Your task to perform on an android device: What's the weather going to be tomorrow? Image 0: 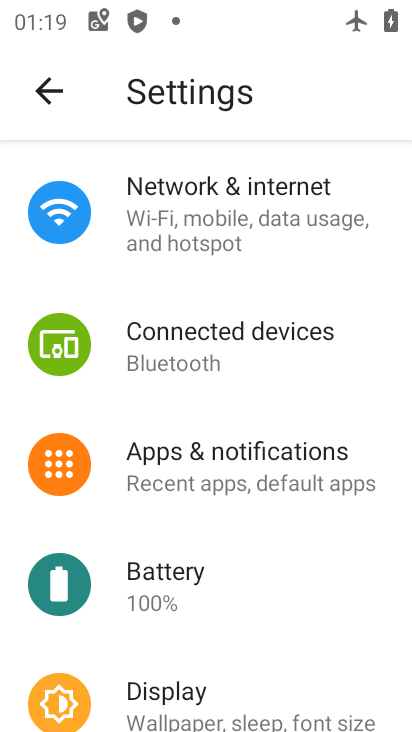
Step 0: press home button
Your task to perform on an android device: What's the weather going to be tomorrow? Image 1: 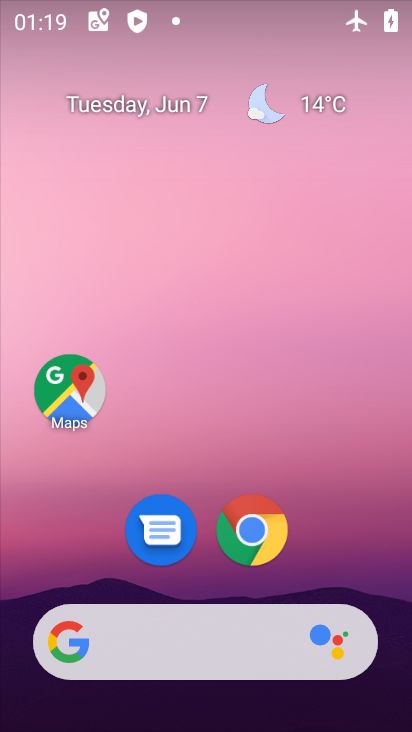
Step 1: drag from (202, 504) to (210, 197)
Your task to perform on an android device: What's the weather going to be tomorrow? Image 2: 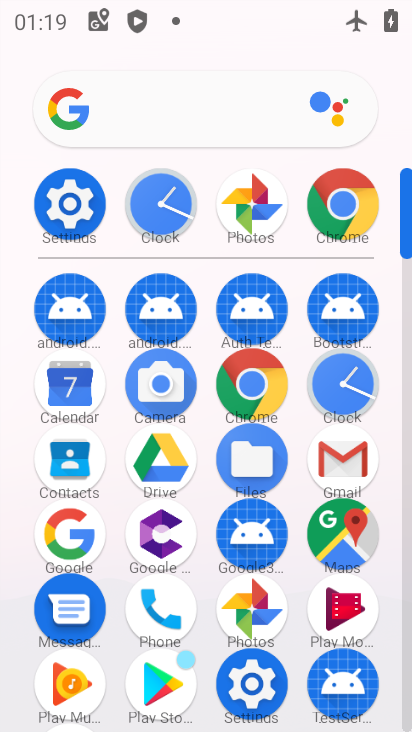
Step 2: click (77, 384)
Your task to perform on an android device: What's the weather going to be tomorrow? Image 3: 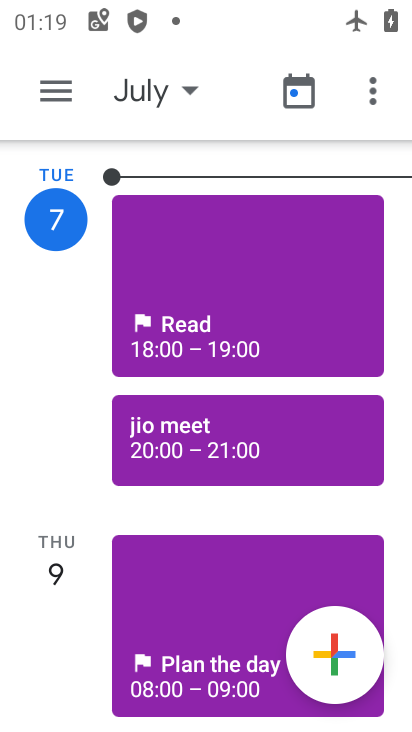
Step 3: task complete